Your task to perform on an android device: turn pop-ups on in chrome Image 0: 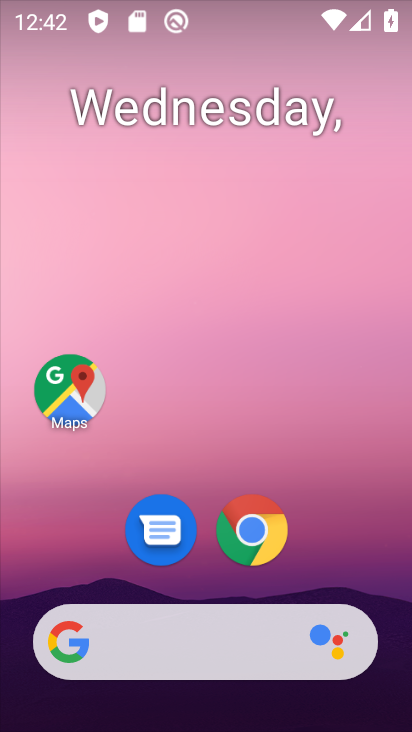
Step 0: drag from (356, 528) to (331, 140)
Your task to perform on an android device: turn pop-ups on in chrome Image 1: 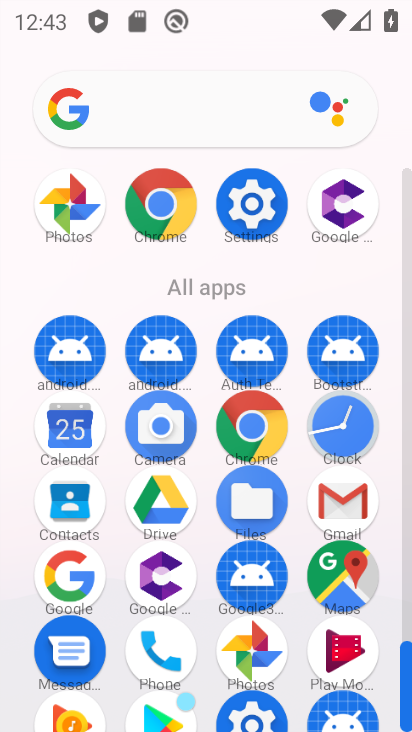
Step 1: click (150, 201)
Your task to perform on an android device: turn pop-ups on in chrome Image 2: 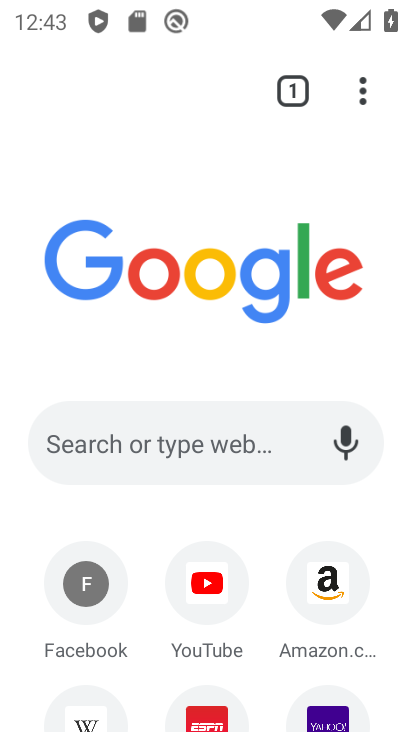
Step 2: drag from (353, 114) to (245, 569)
Your task to perform on an android device: turn pop-ups on in chrome Image 3: 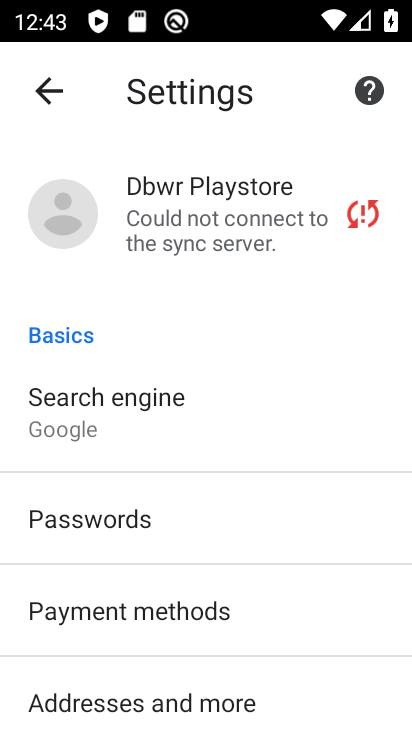
Step 3: drag from (305, 684) to (289, 358)
Your task to perform on an android device: turn pop-ups on in chrome Image 4: 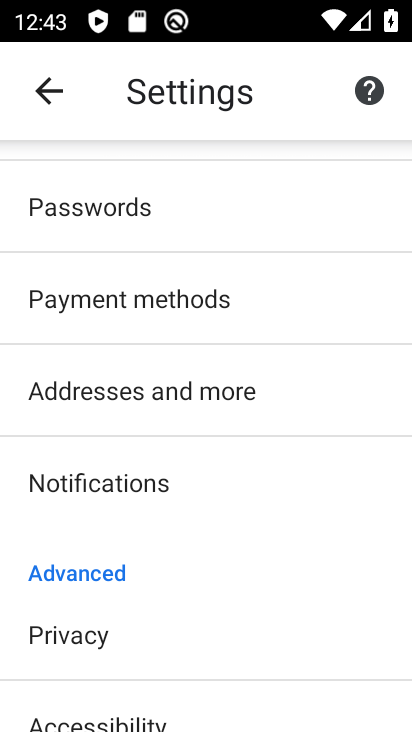
Step 4: drag from (257, 652) to (271, 312)
Your task to perform on an android device: turn pop-ups on in chrome Image 5: 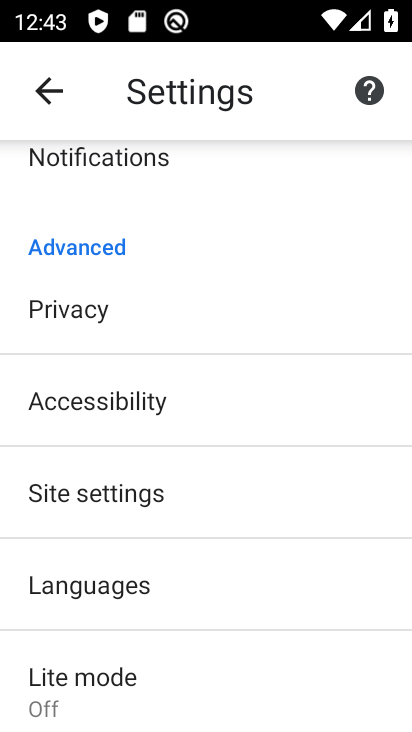
Step 5: drag from (219, 652) to (256, 318)
Your task to perform on an android device: turn pop-ups on in chrome Image 6: 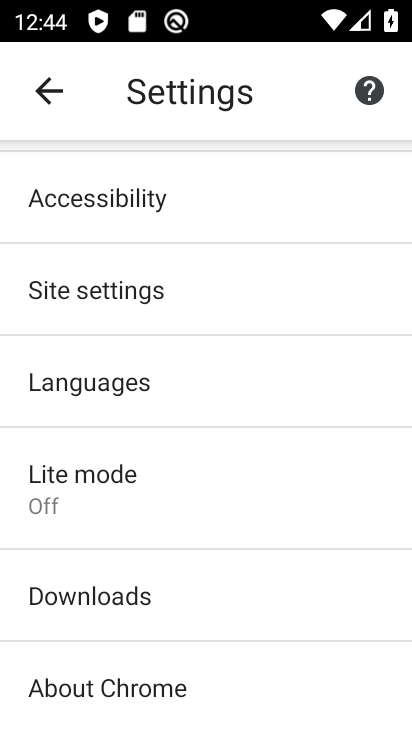
Step 6: click (139, 311)
Your task to perform on an android device: turn pop-ups on in chrome Image 7: 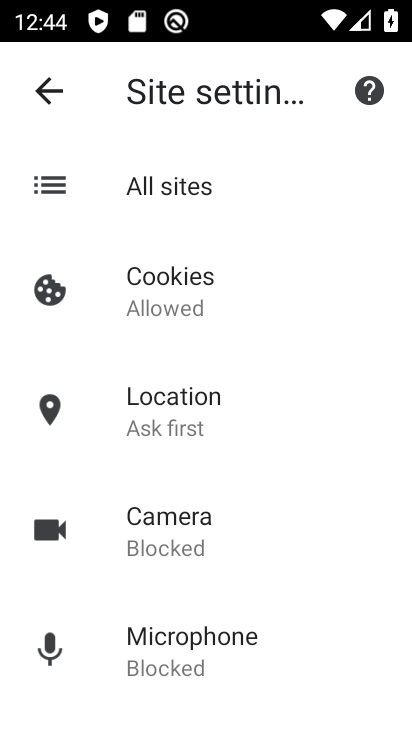
Step 7: drag from (220, 652) to (221, 333)
Your task to perform on an android device: turn pop-ups on in chrome Image 8: 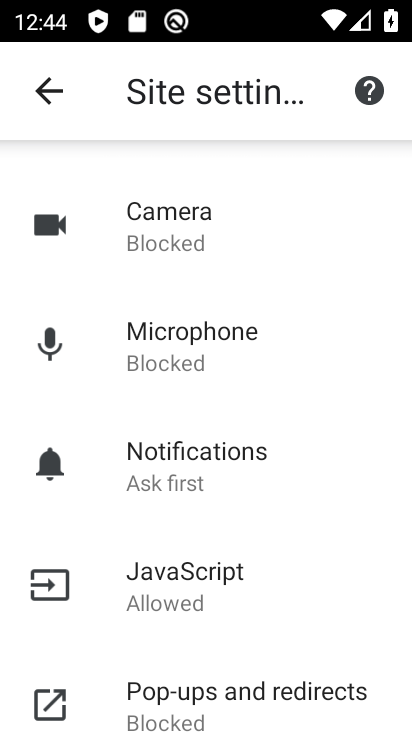
Step 8: drag from (278, 622) to (270, 336)
Your task to perform on an android device: turn pop-ups on in chrome Image 9: 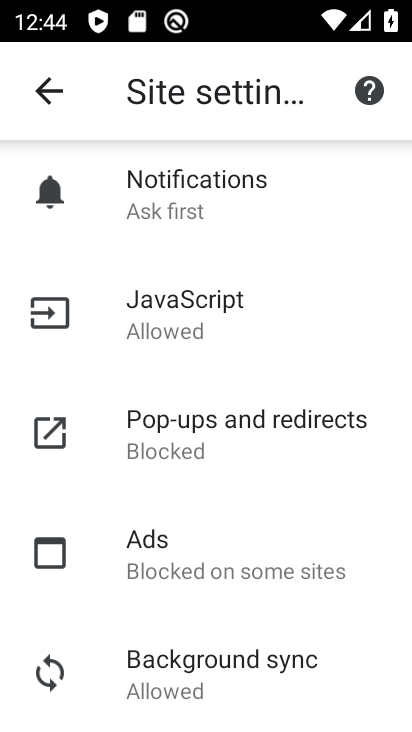
Step 9: click (263, 427)
Your task to perform on an android device: turn pop-ups on in chrome Image 10: 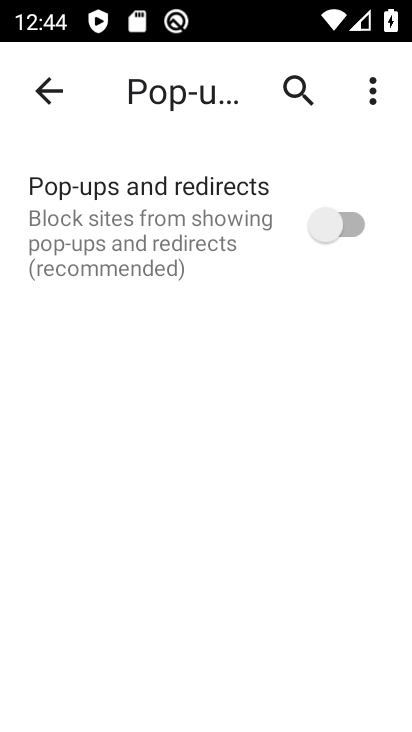
Step 10: click (360, 216)
Your task to perform on an android device: turn pop-ups on in chrome Image 11: 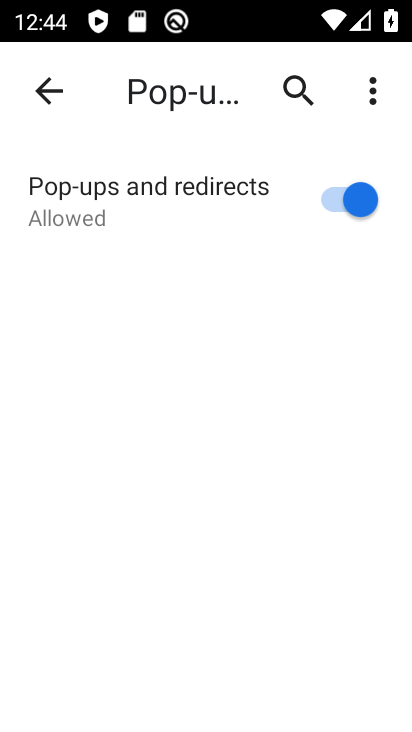
Step 11: task complete